Your task to perform on an android device: Open battery settings Image 0: 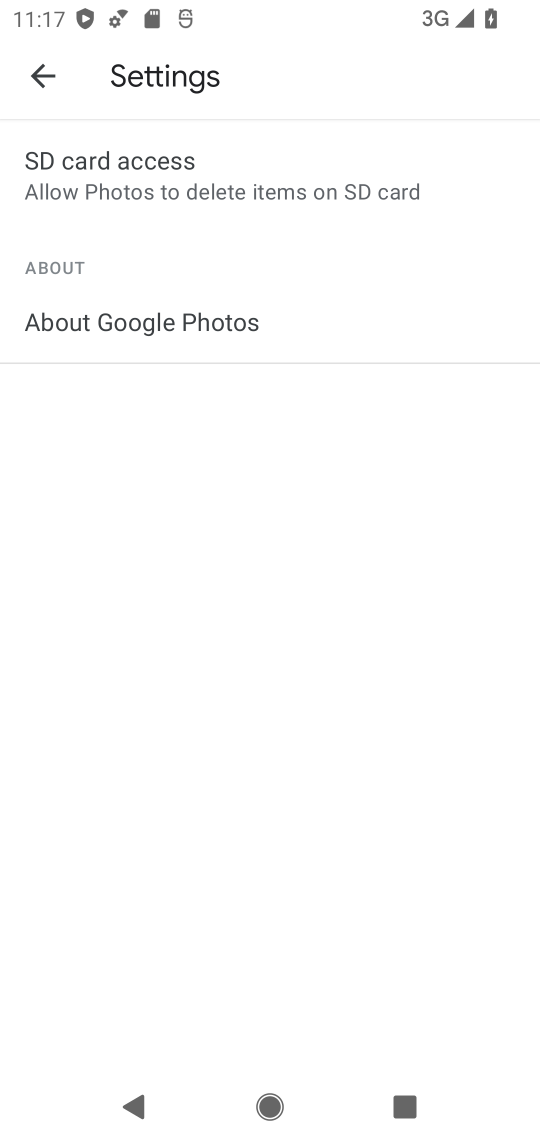
Step 0: press home button
Your task to perform on an android device: Open battery settings Image 1: 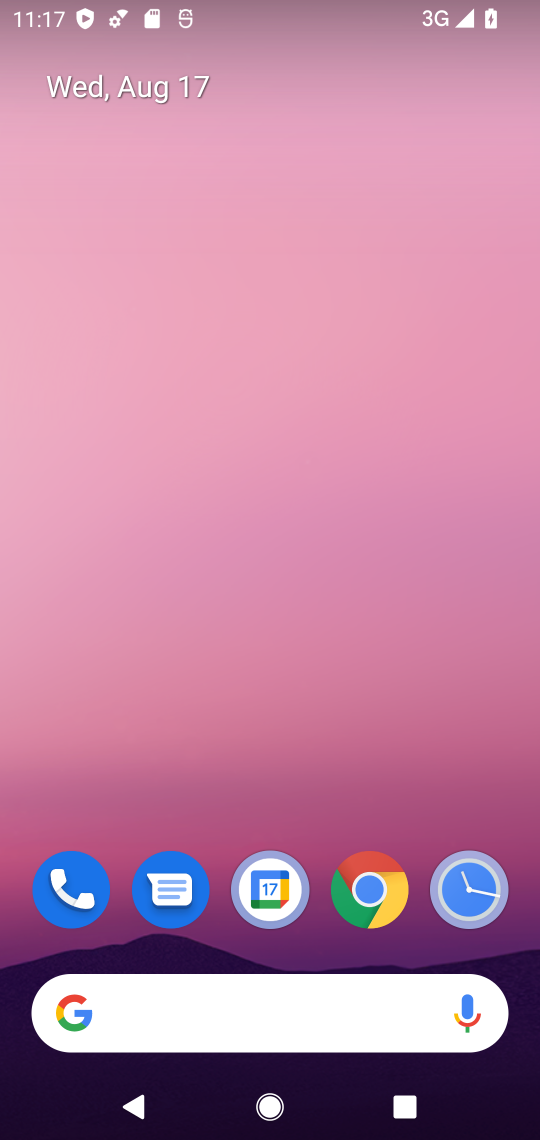
Step 1: drag from (301, 766) to (333, 2)
Your task to perform on an android device: Open battery settings Image 2: 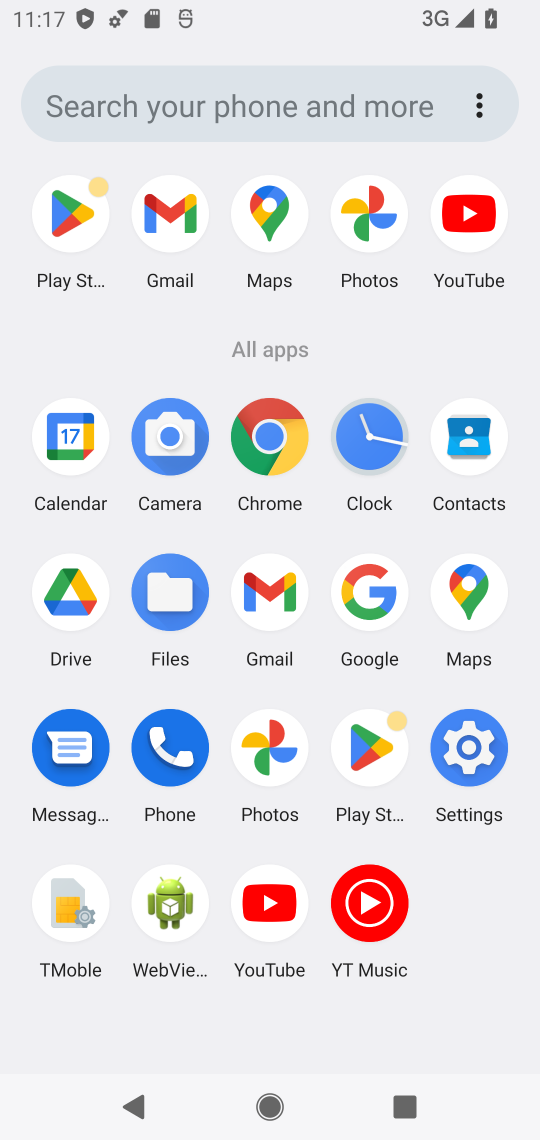
Step 2: click (474, 744)
Your task to perform on an android device: Open battery settings Image 3: 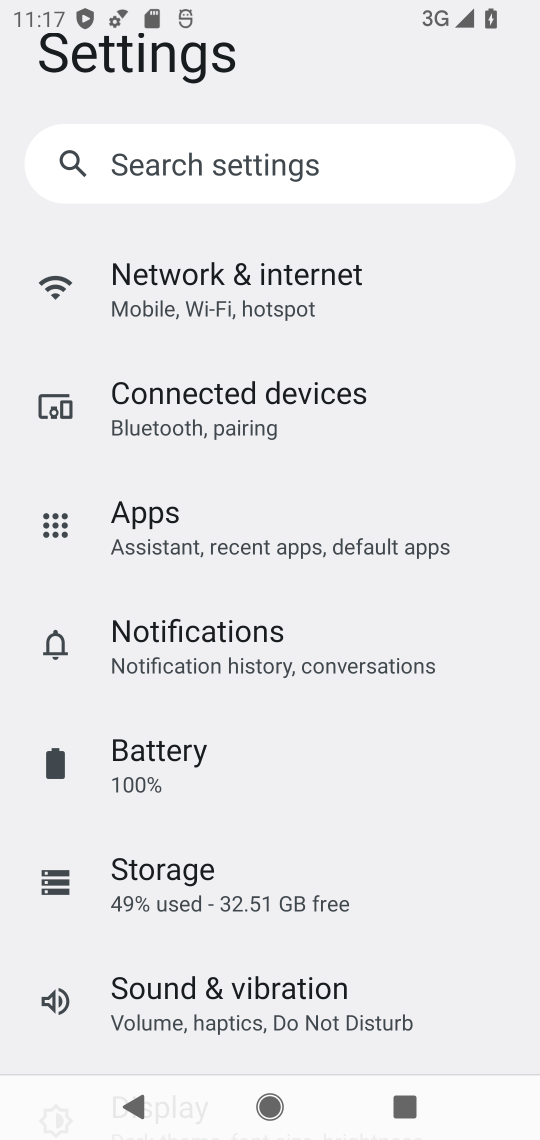
Step 3: click (246, 770)
Your task to perform on an android device: Open battery settings Image 4: 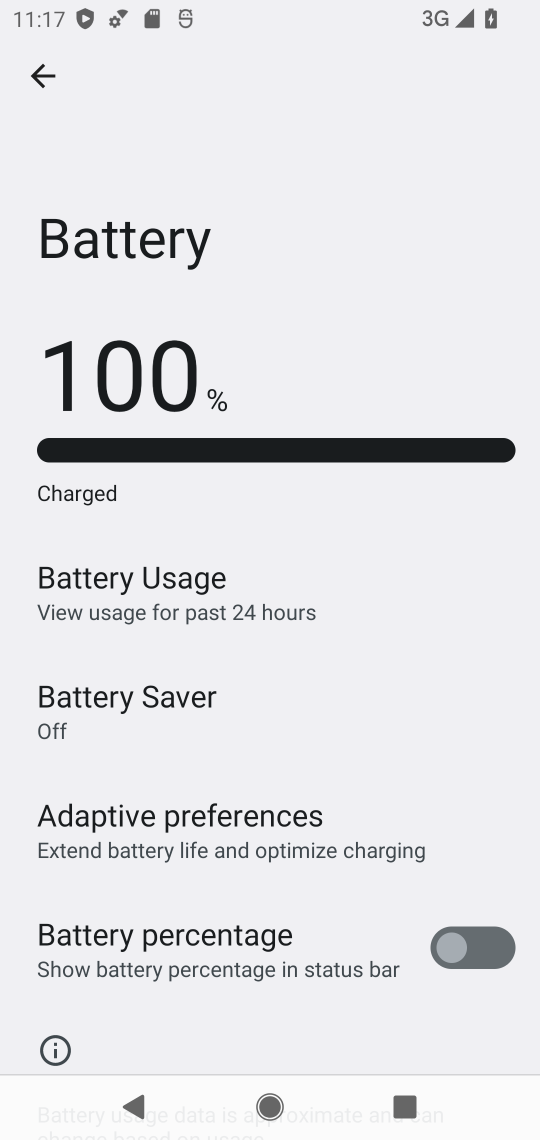
Step 4: task complete